Your task to perform on an android device: add a contact Image 0: 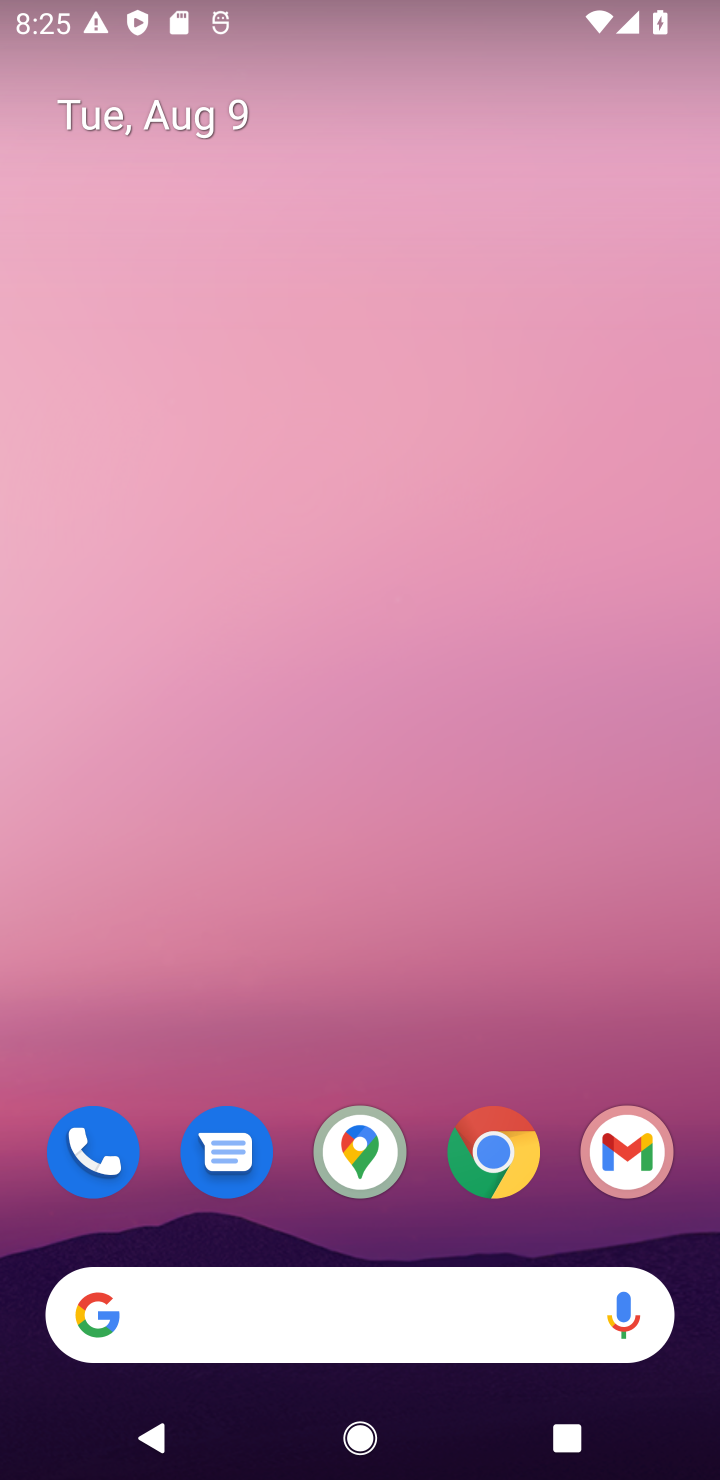
Step 0: click (89, 1143)
Your task to perform on an android device: add a contact Image 1: 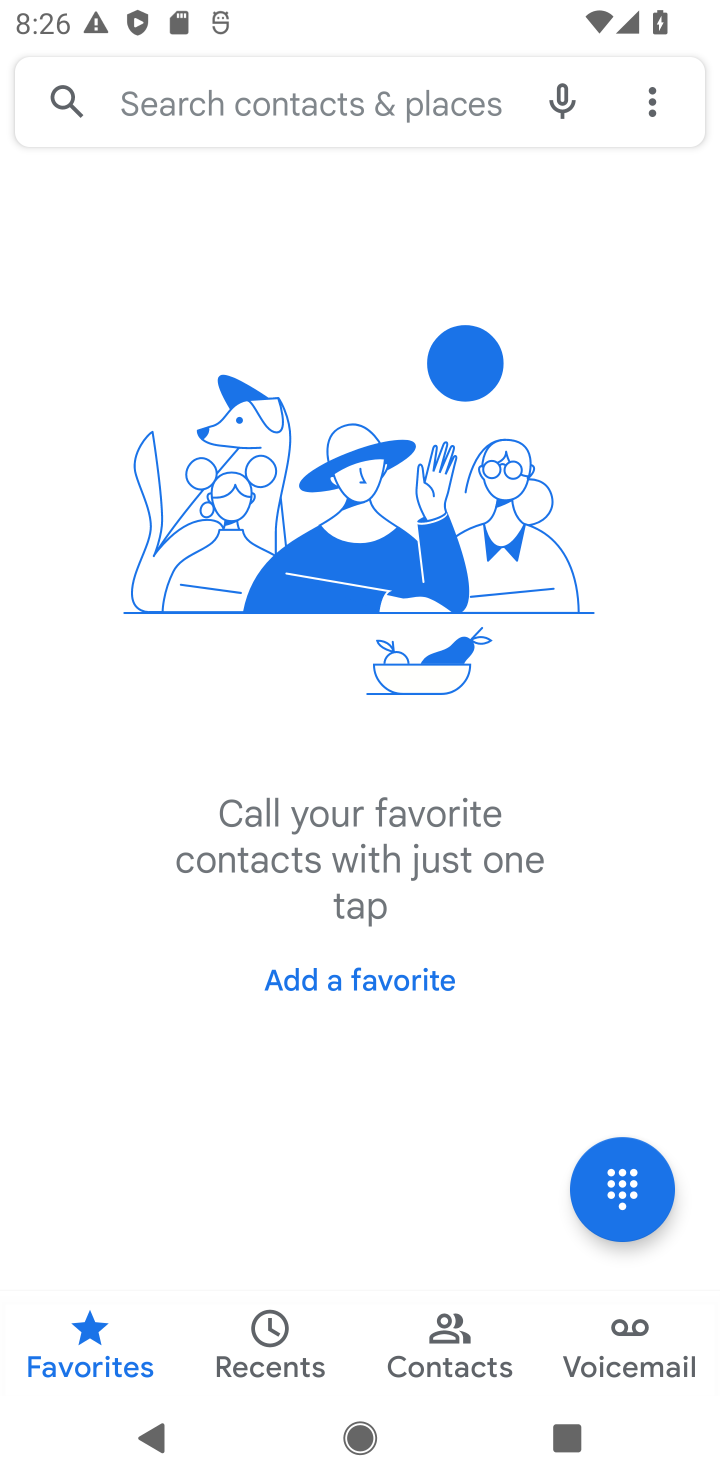
Step 1: click (322, 1070)
Your task to perform on an android device: add a contact Image 2: 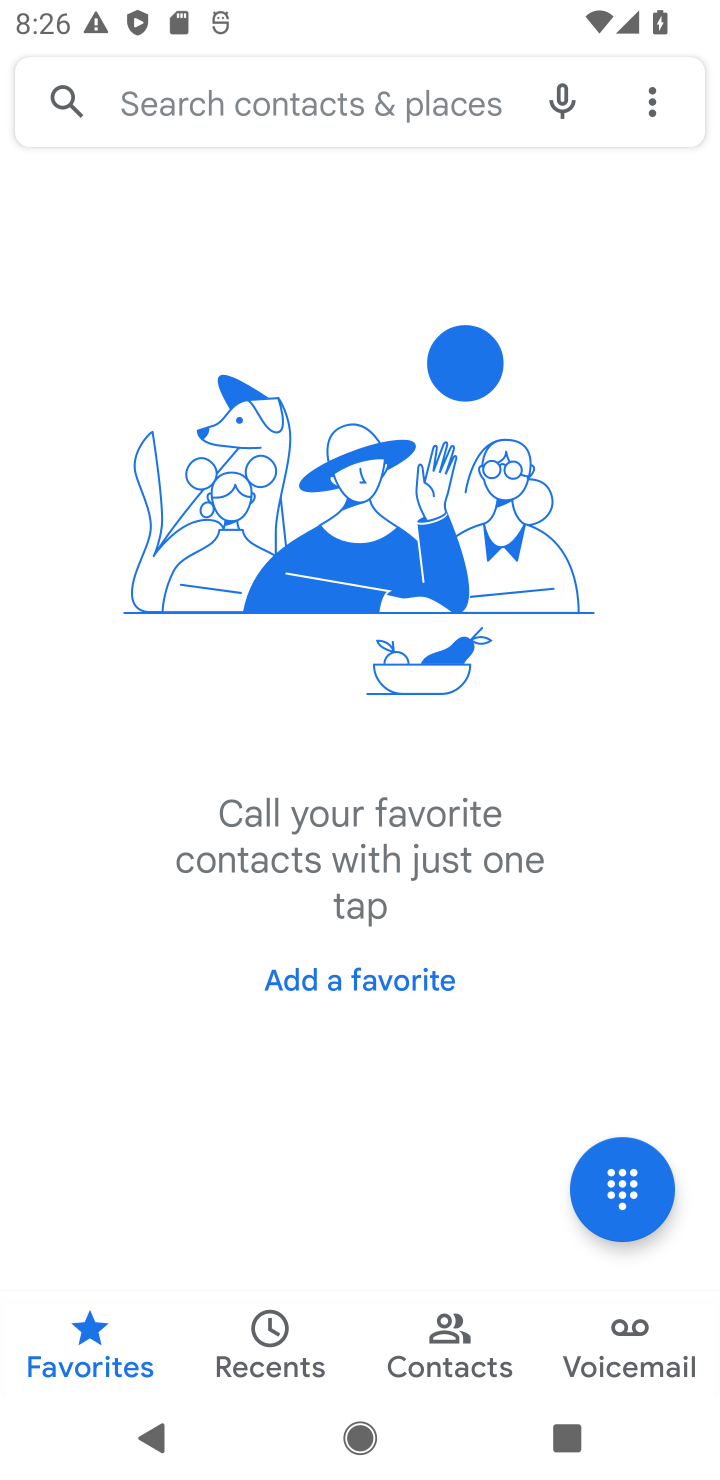
Step 2: click (408, 1381)
Your task to perform on an android device: add a contact Image 3: 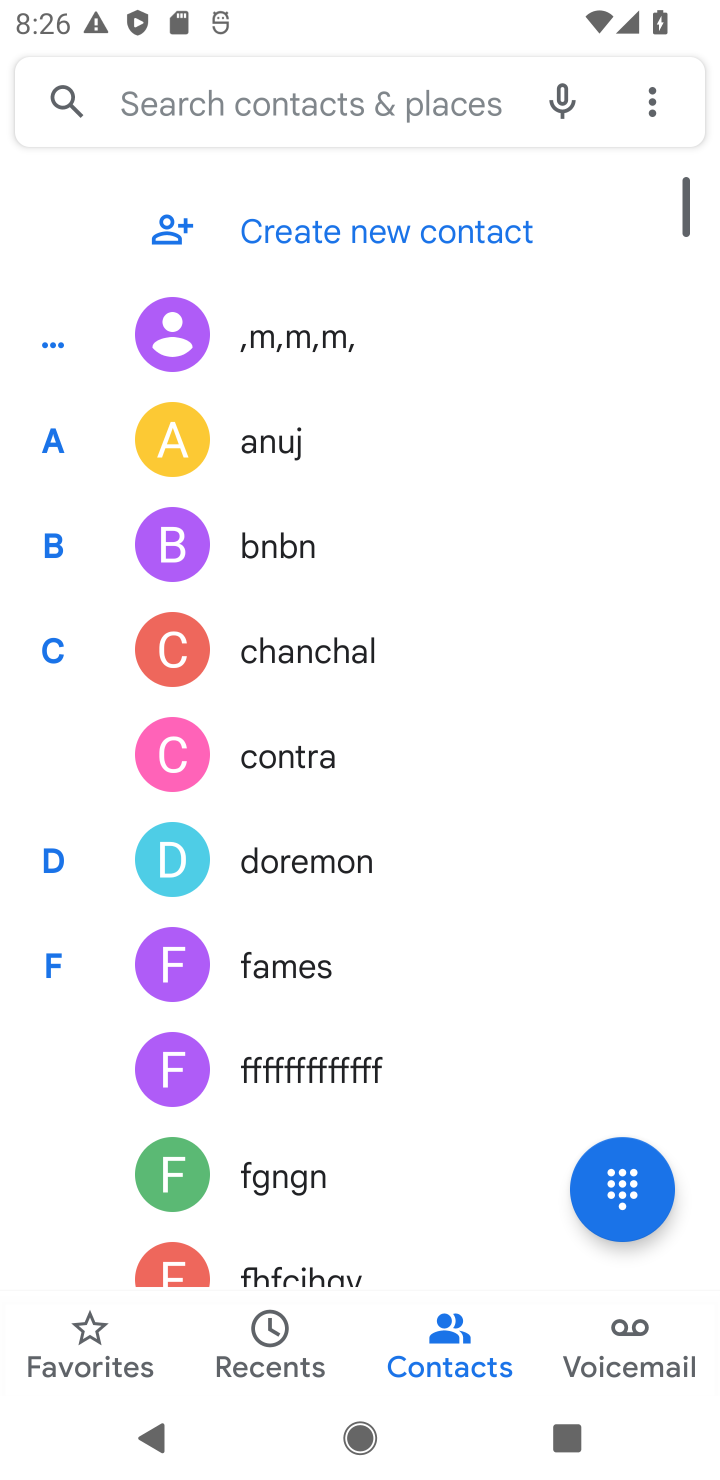
Step 3: click (428, 221)
Your task to perform on an android device: add a contact Image 4: 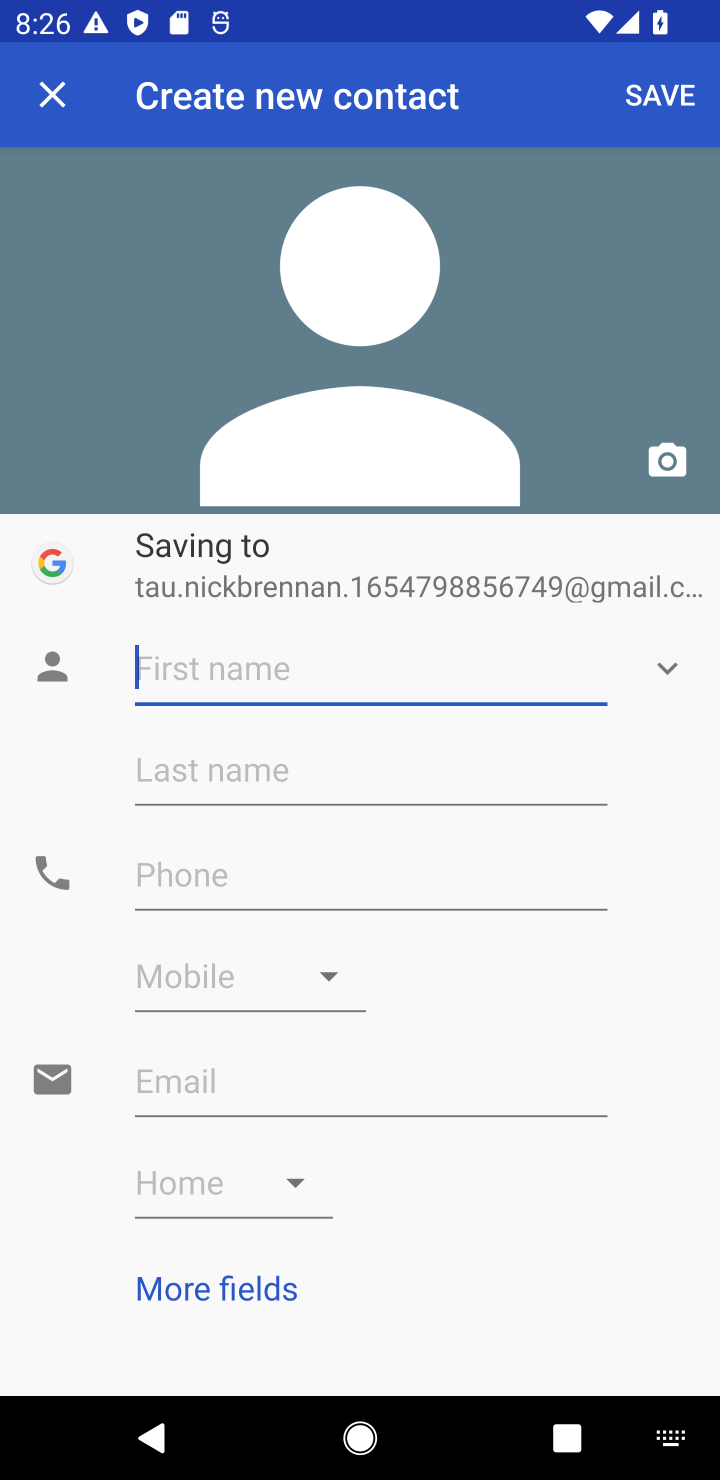
Step 4: type "cfgvb"
Your task to perform on an android device: add a contact Image 5: 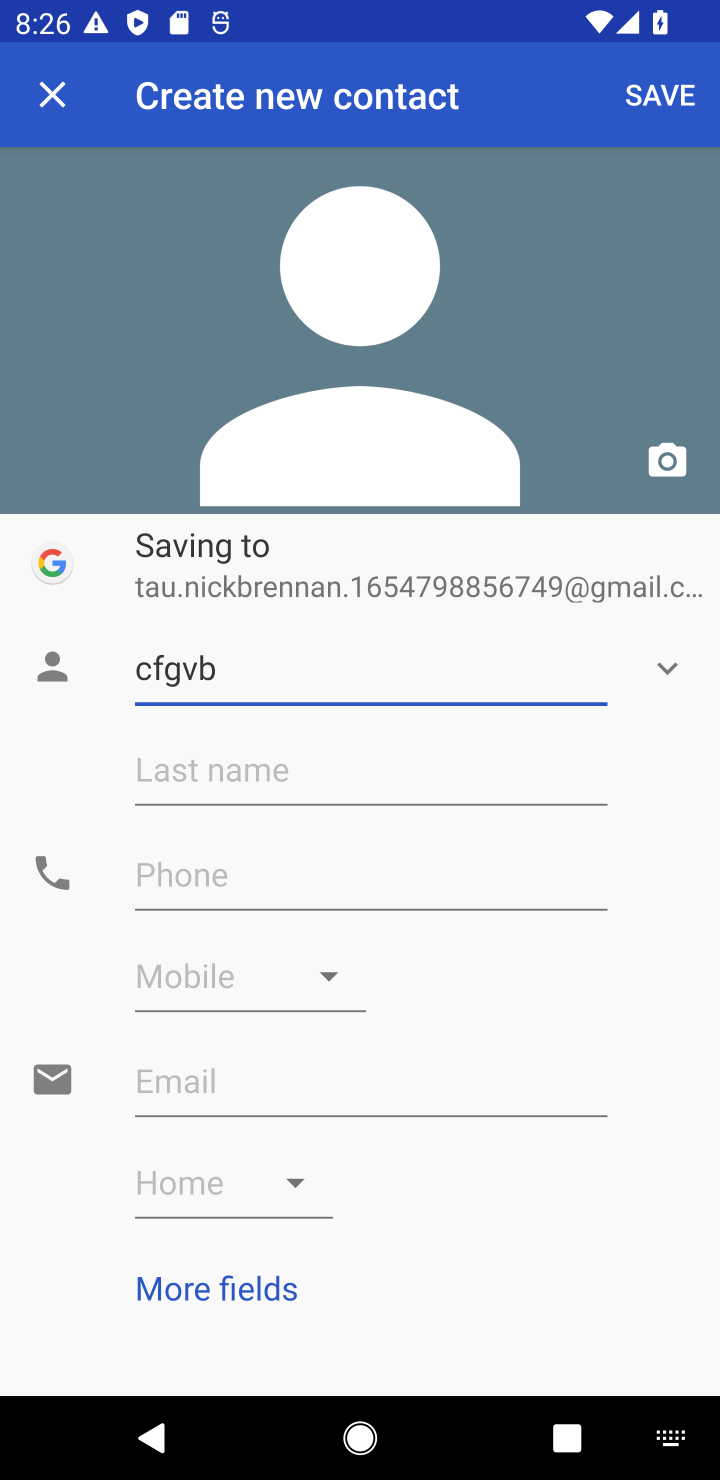
Step 5: click (365, 852)
Your task to perform on an android device: add a contact Image 6: 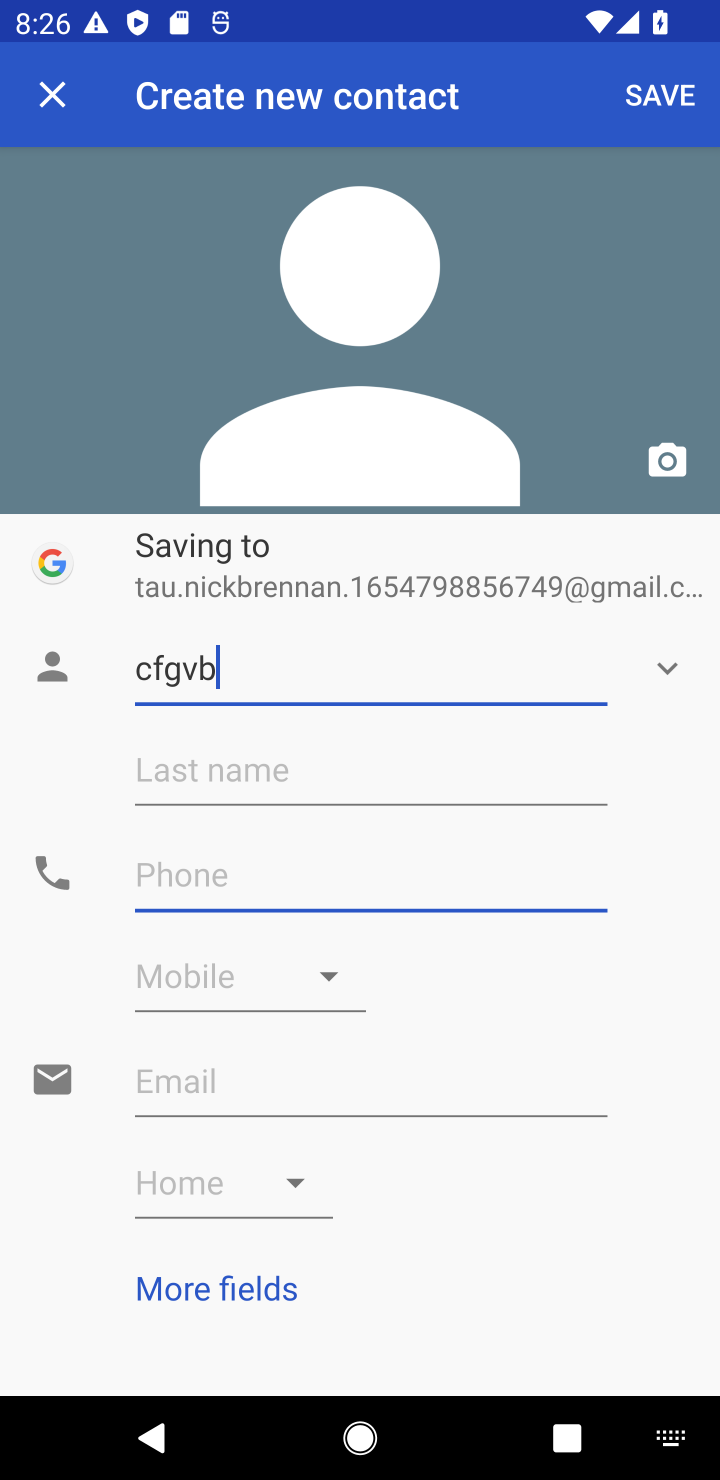
Step 6: click (365, 852)
Your task to perform on an android device: add a contact Image 7: 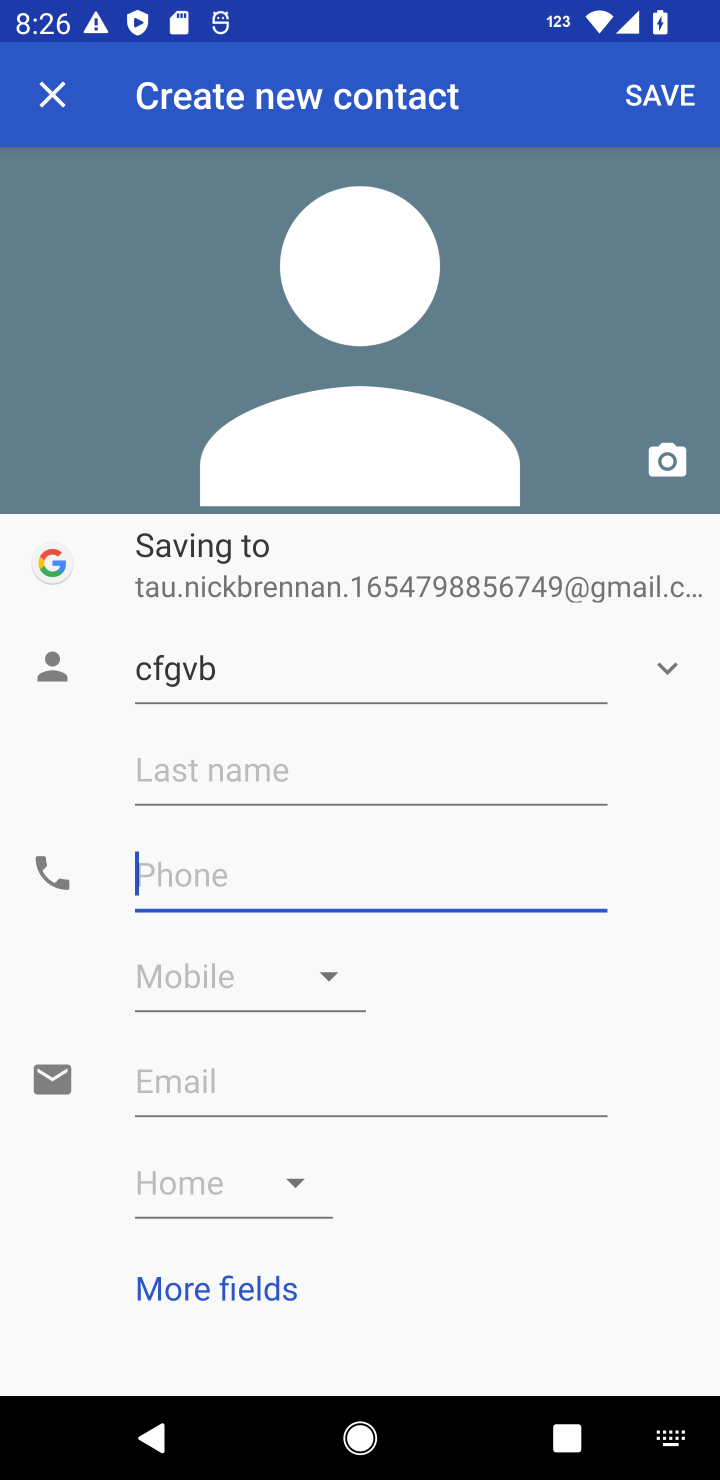
Step 7: type "45678987"
Your task to perform on an android device: add a contact Image 8: 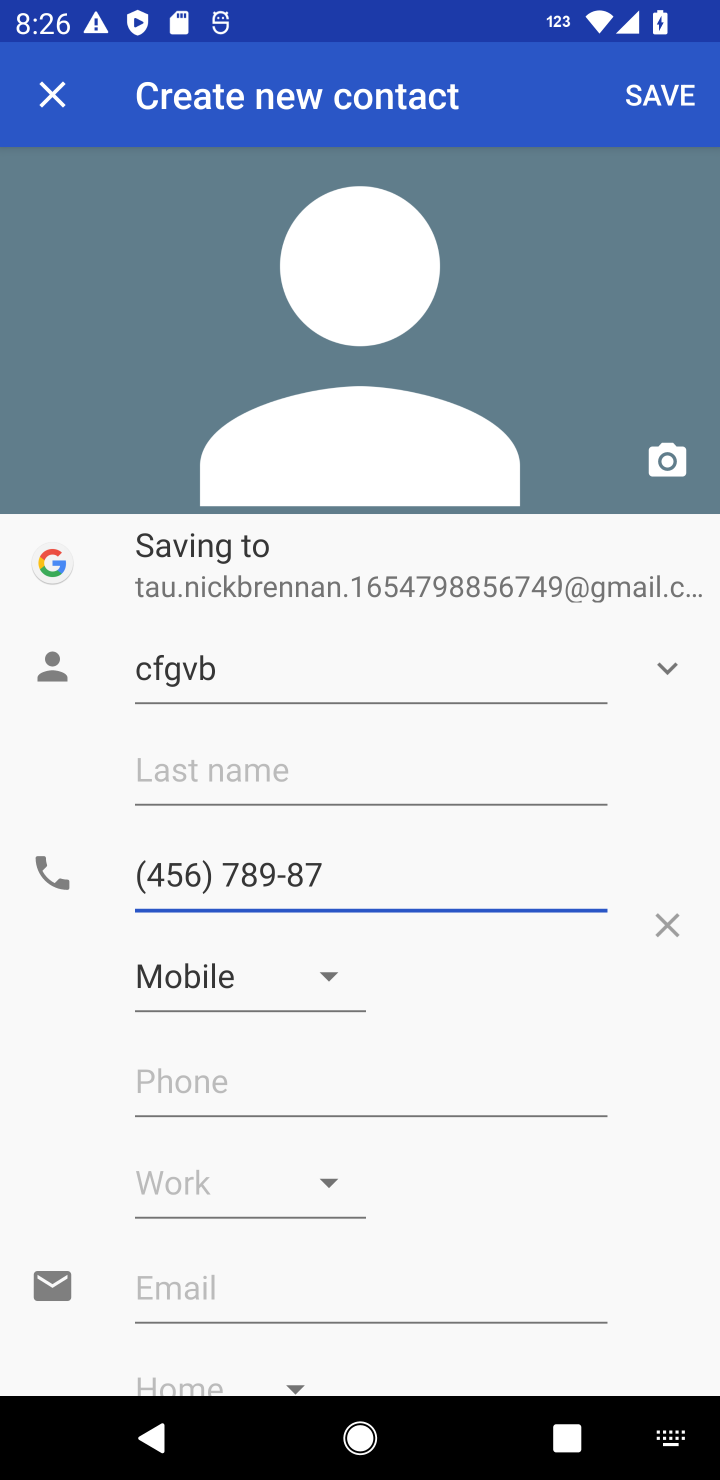
Step 8: click (676, 90)
Your task to perform on an android device: add a contact Image 9: 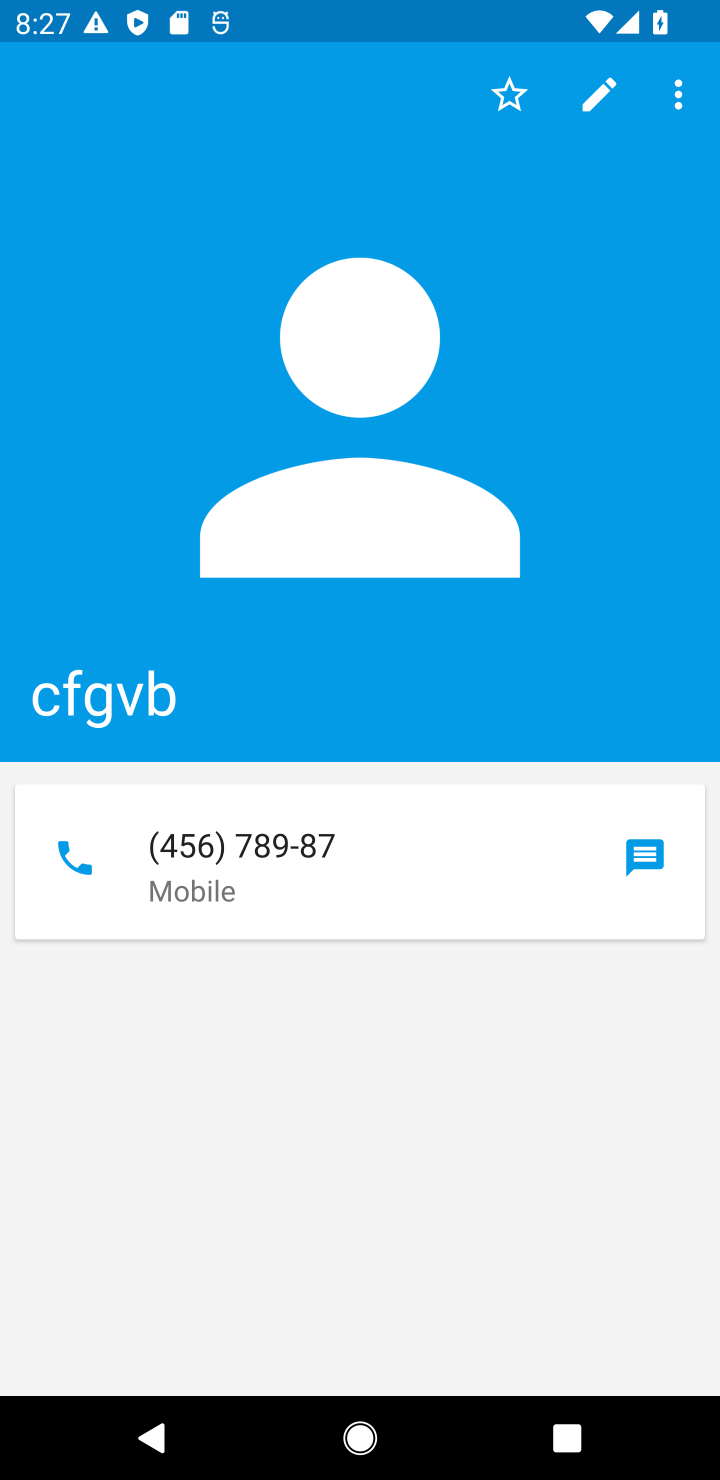
Step 9: task complete